Your task to perform on an android device: refresh tabs in the chrome app Image 0: 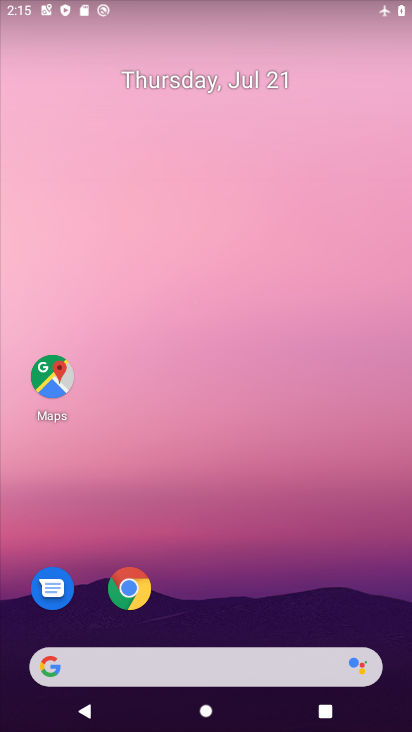
Step 0: drag from (205, 616) to (247, 185)
Your task to perform on an android device: refresh tabs in the chrome app Image 1: 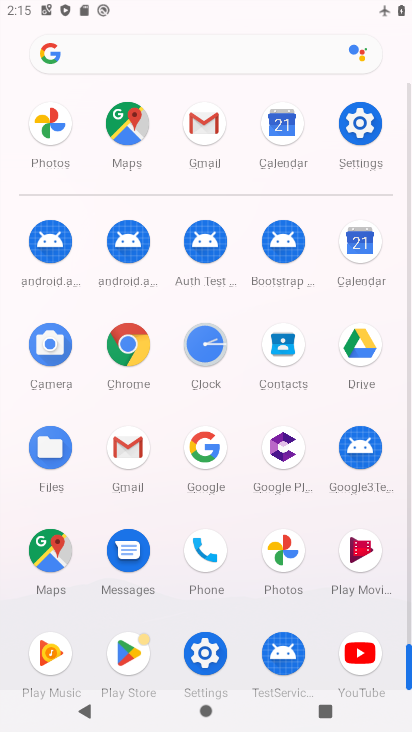
Step 1: click (123, 359)
Your task to perform on an android device: refresh tabs in the chrome app Image 2: 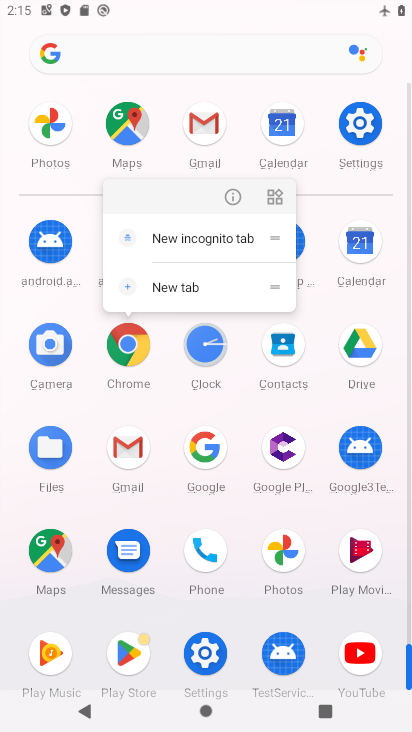
Step 2: click (214, 189)
Your task to perform on an android device: refresh tabs in the chrome app Image 3: 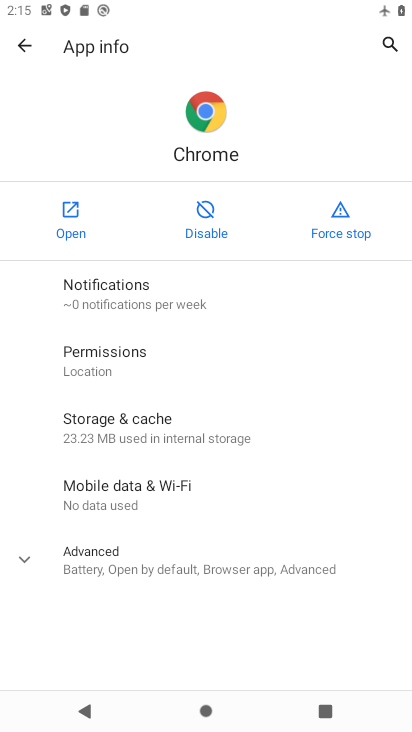
Step 3: click (77, 208)
Your task to perform on an android device: refresh tabs in the chrome app Image 4: 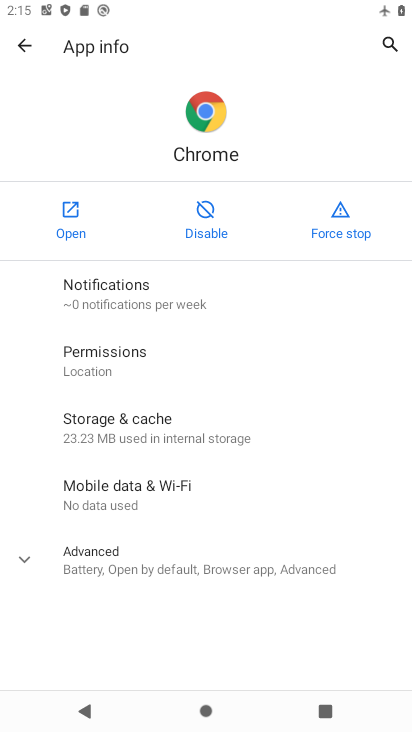
Step 4: click (77, 208)
Your task to perform on an android device: refresh tabs in the chrome app Image 5: 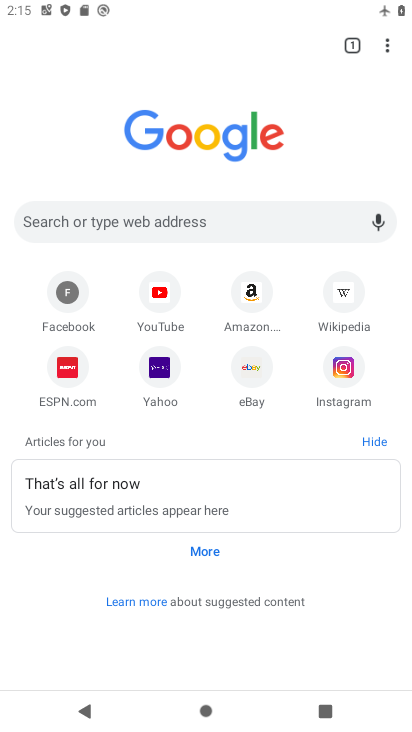
Step 5: click (387, 36)
Your task to perform on an android device: refresh tabs in the chrome app Image 6: 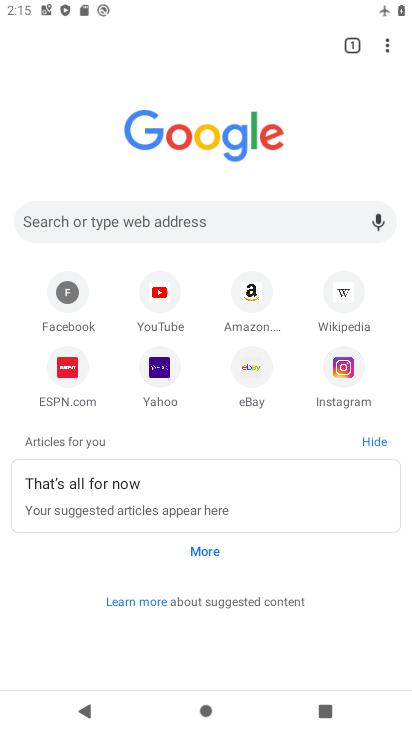
Step 6: task complete